Your task to perform on an android device: turn off wifi Image 0: 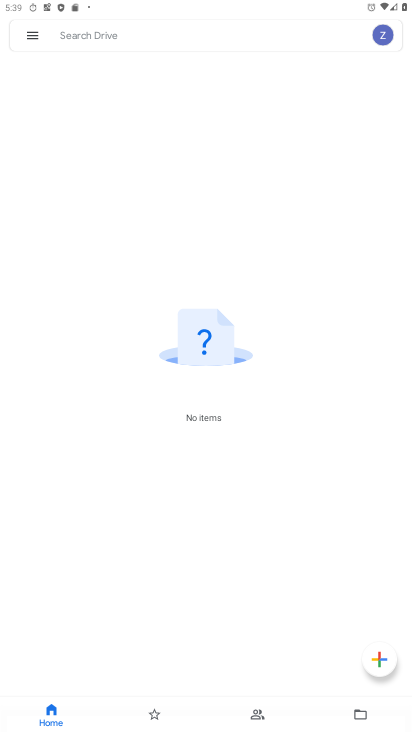
Step 0: press home button
Your task to perform on an android device: turn off wifi Image 1: 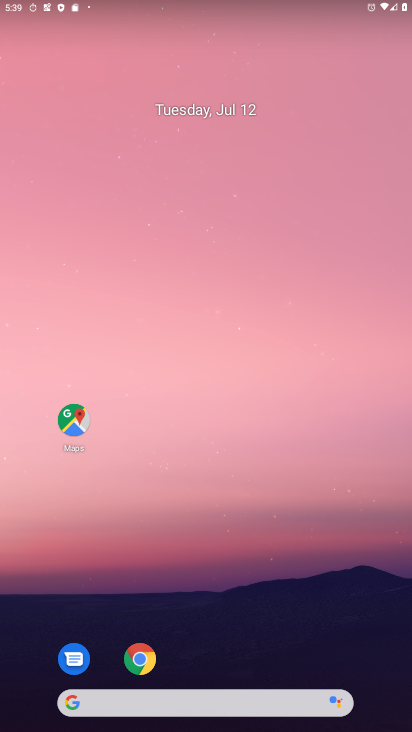
Step 1: drag from (219, 502) to (238, 17)
Your task to perform on an android device: turn off wifi Image 2: 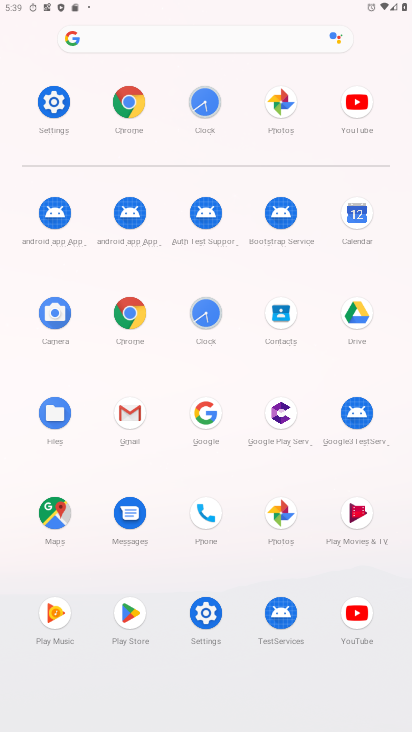
Step 2: click (57, 98)
Your task to perform on an android device: turn off wifi Image 3: 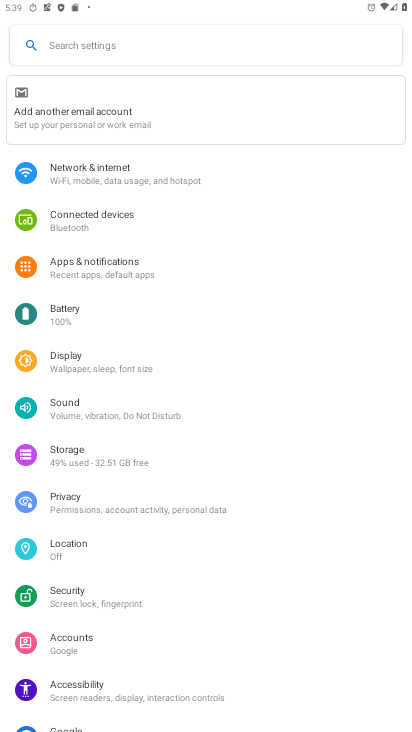
Step 3: click (153, 178)
Your task to perform on an android device: turn off wifi Image 4: 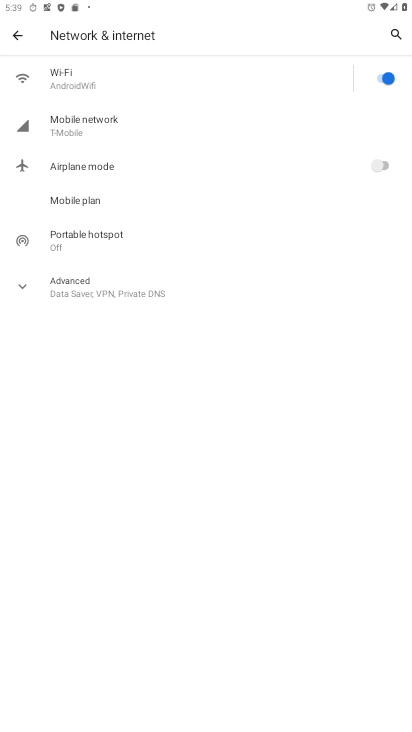
Step 4: click (379, 80)
Your task to perform on an android device: turn off wifi Image 5: 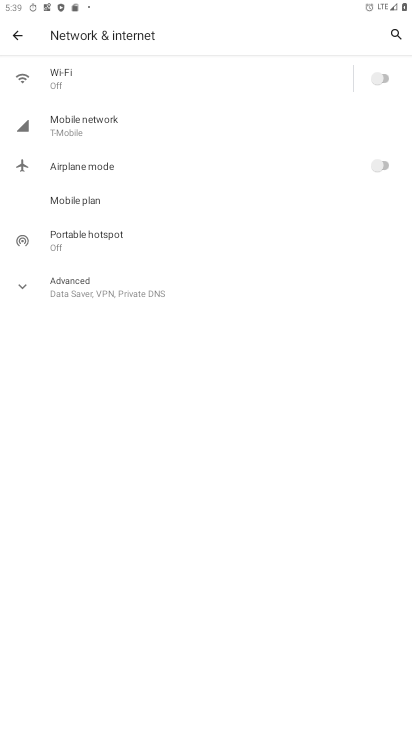
Step 5: task complete